Your task to perform on an android device: snooze an email in the gmail app Image 0: 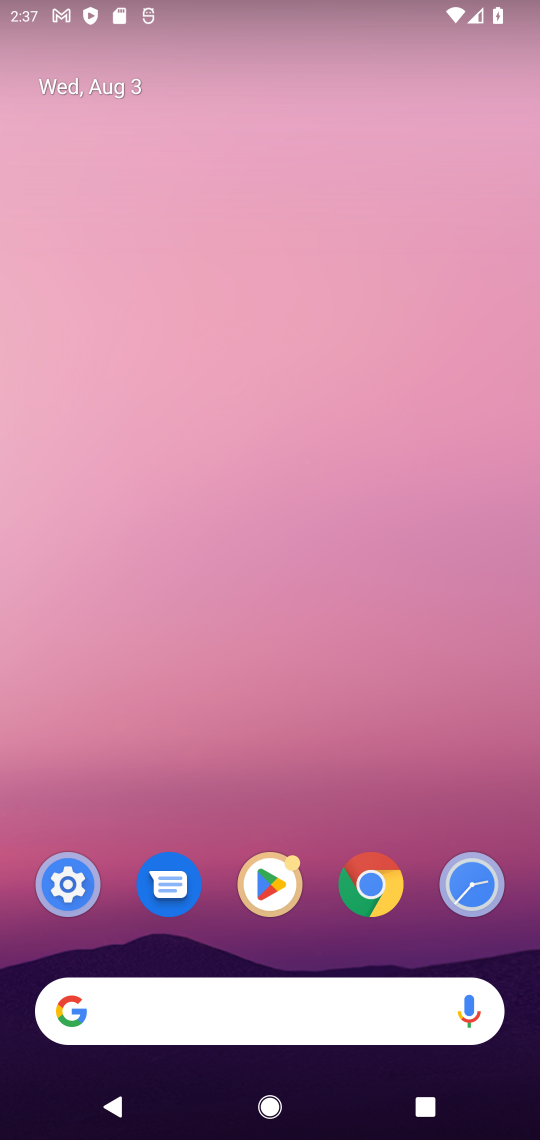
Step 0: drag from (209, 934) to (241, 262)
Your task to perform on an android device: snooze an email in the gmail app Image 1: 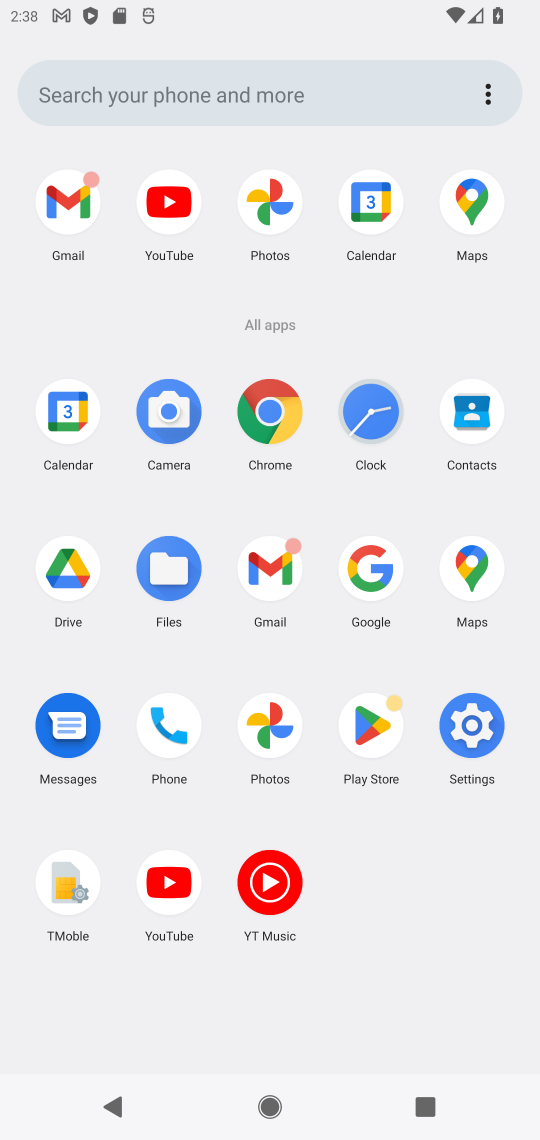
Step 1: click (270, 572)
Your task to perform on an android device: snooze an email in the gmail app Image 2: 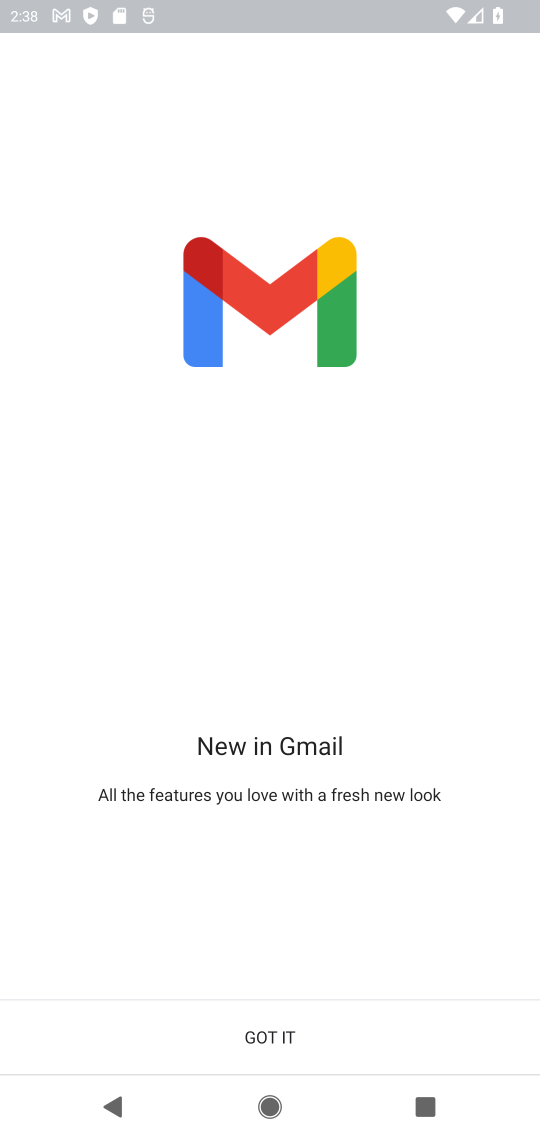
Step 2: click (269, 1040)
Your task to perform on an android device: snooze an email in the gmail app Image 3: 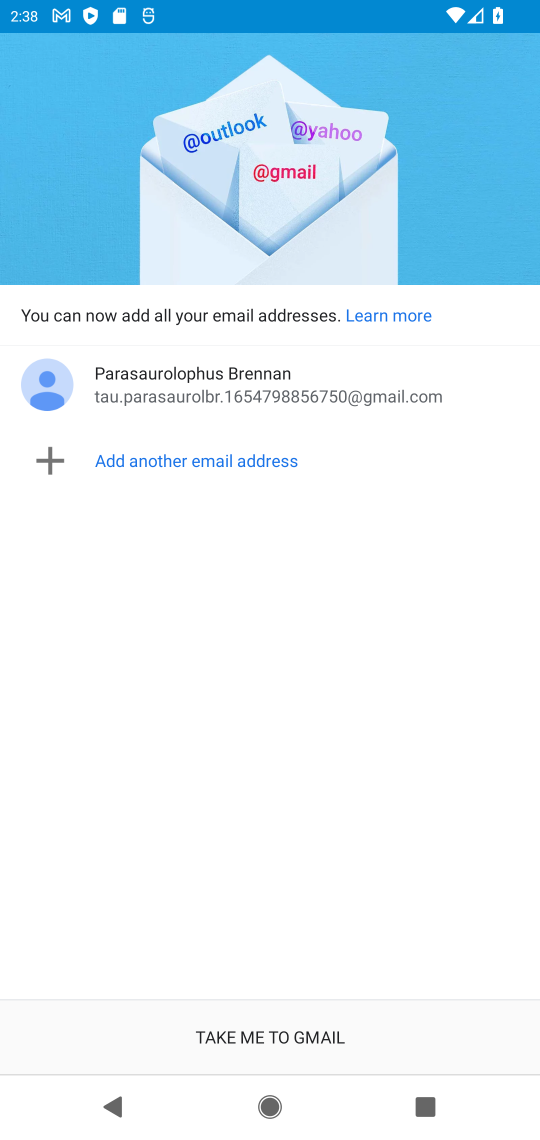
Step 3: click (269, 1040)
Your task to perform on an android device: snooze an email in the gmail app Image 4: 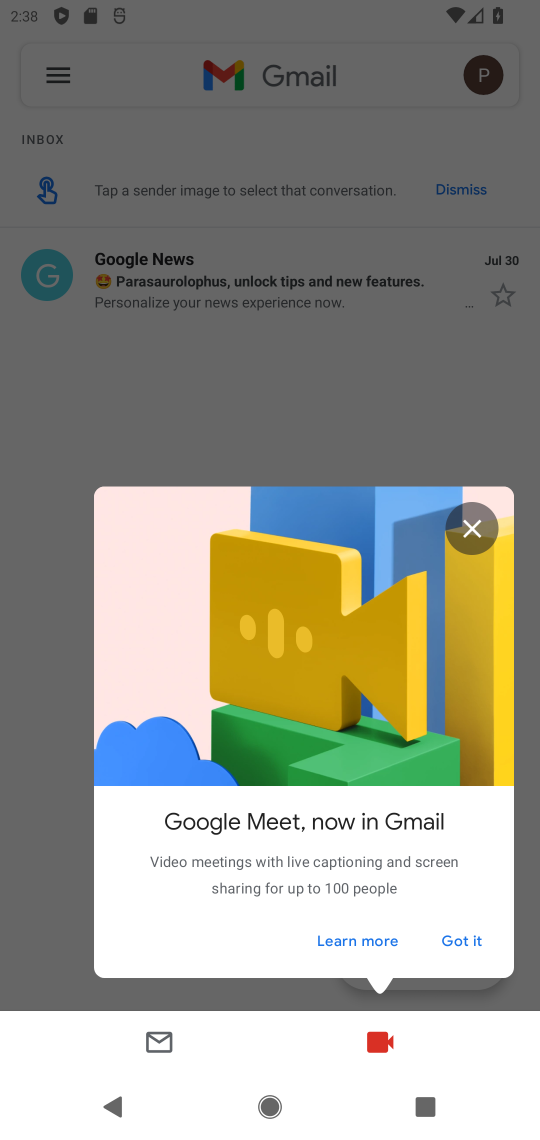
Step 4: click (453, 944)
Your task to perform on an android device: snooze an email in the gmail app Image 5: 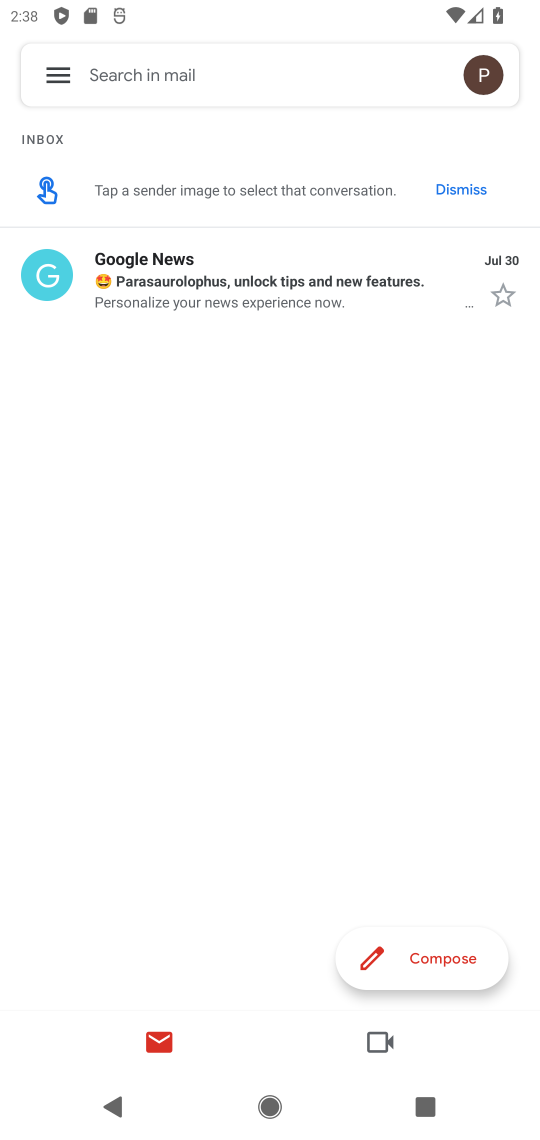
Step 5: click (406, 284)
Your task to perform on an android device: snooze an email in the gmail app Image 6: 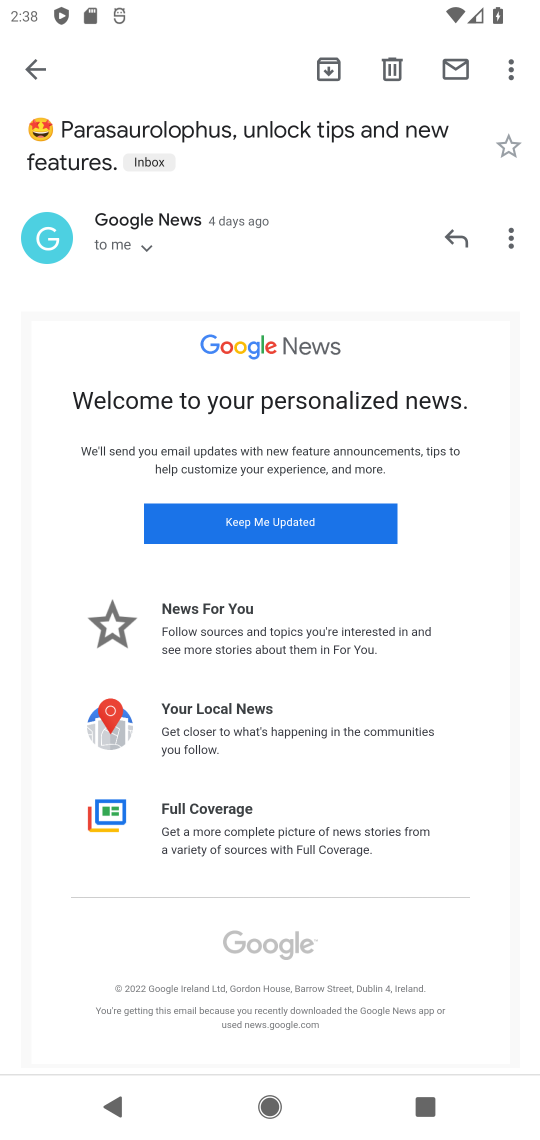
Step 6: click (503, 79)
Your task to perform on an android device: snooze an email in the gmail app Image 7: 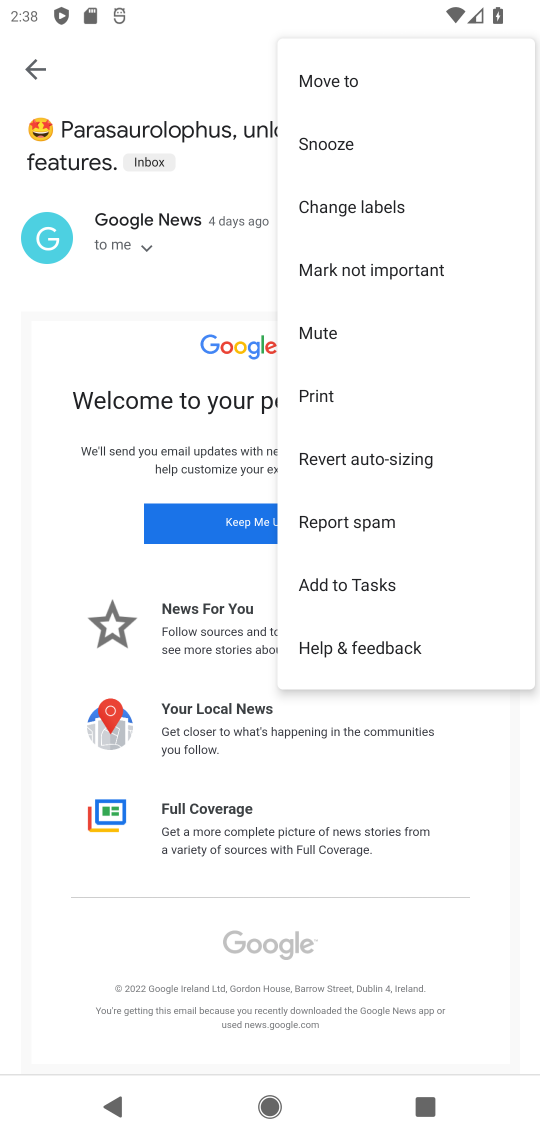
Step 7: click (335, 125)
Your task to perform on an android device: snooze an email in the gmail app Image 8: 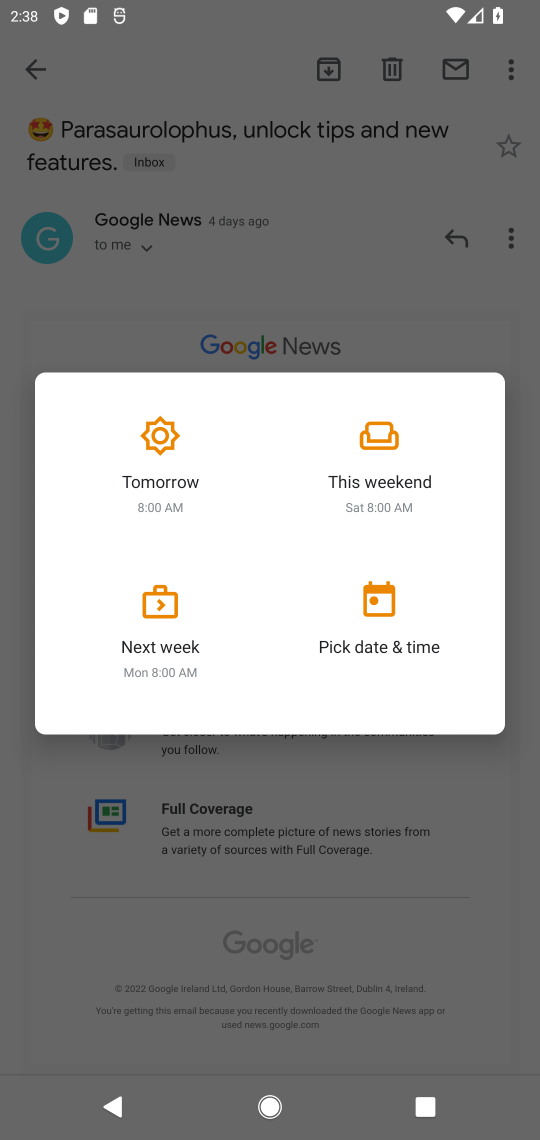
Step 8: click (199, 476)
Your task to perform on an android device: snooze an email in the gmail app Image 9: 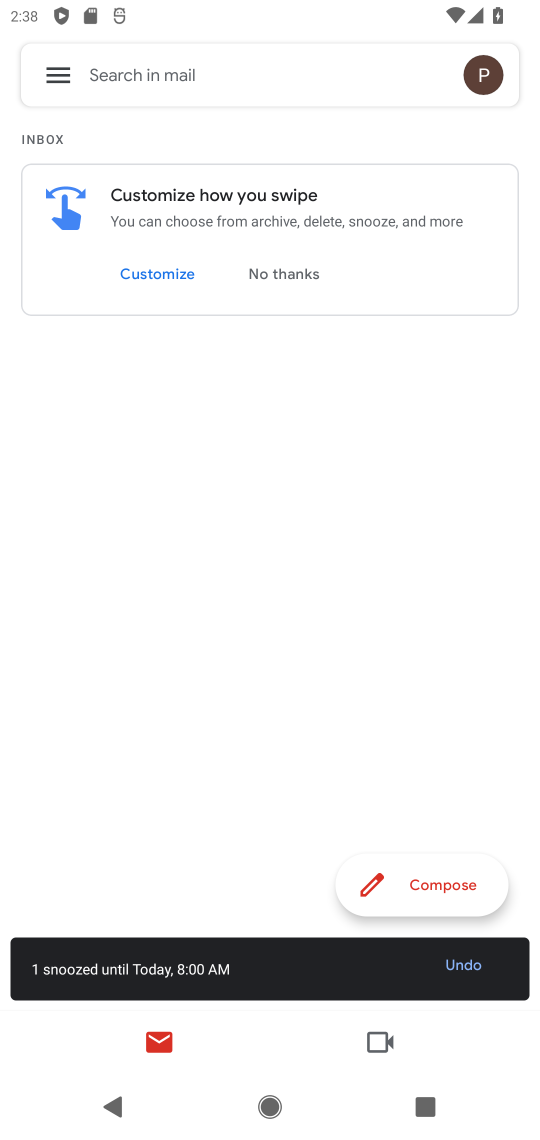
Step 9: task complete